Your task to perform on an android device: What is the recent news? Image 0: 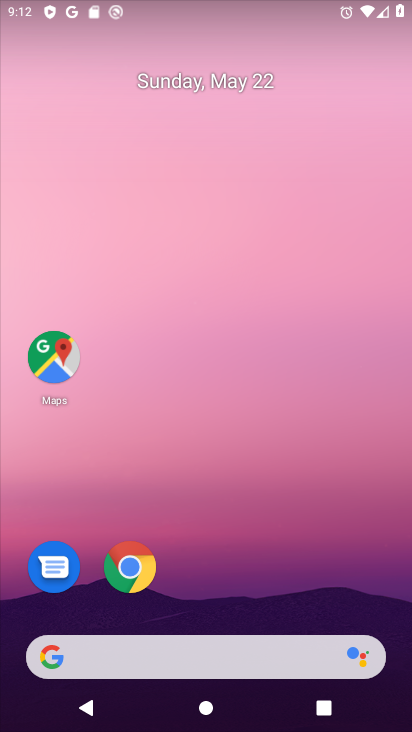
Step 0: drag from (190, 615) to (226, 270)
Your task to perform on an android device: What is the recent news? Image 1: 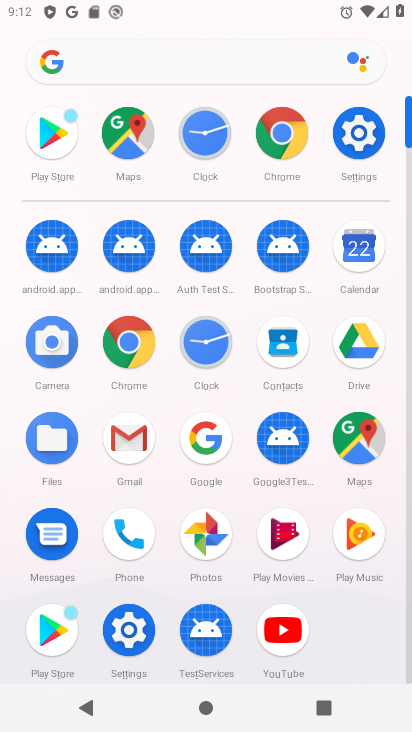
Step 1: click (236, 49)
Your task to perform on an android device: What is the recent news? Image 2: 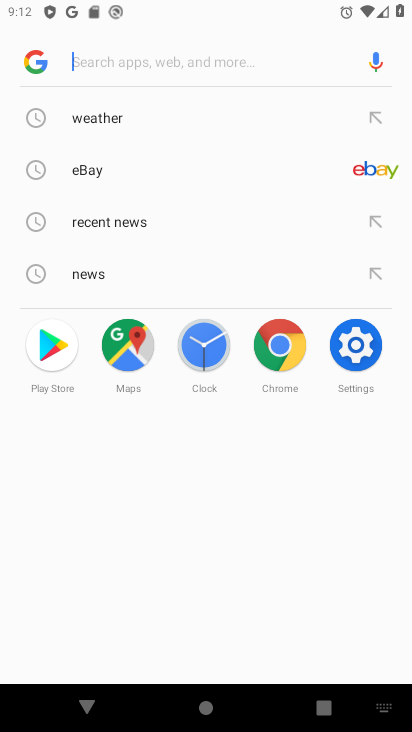
Step 2: type "recent news"
Your task to perform on an android device: What is the recent news? Image 3: 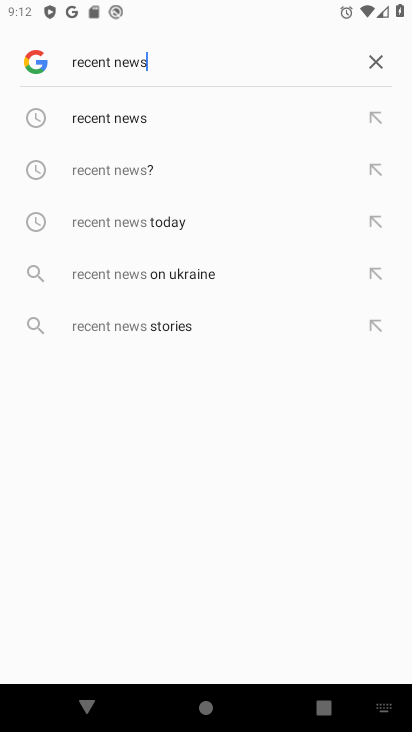
Step 3: click (151, 124)
Your task to perform on an android device: What is the recent news? Image 4: 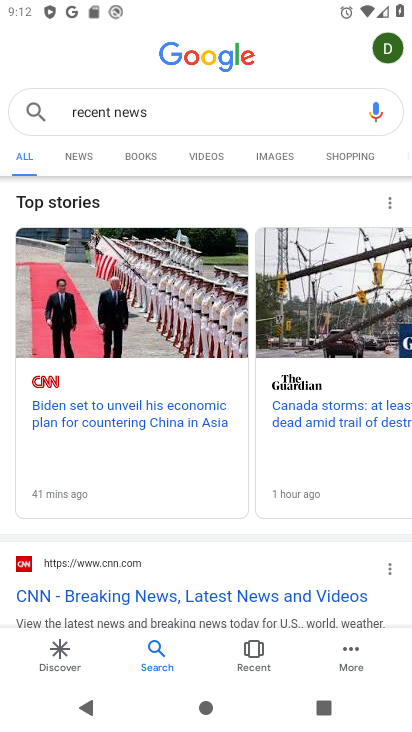
Step 4: task complete